Your task to perform on an android device: toggle pop-ups in chrome Image 0: 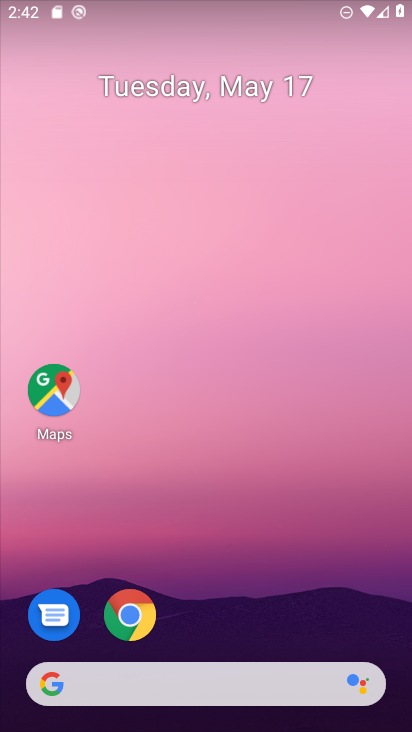
Step 0: click (142, 618)
Your task to perform on an android device: toggle pop-ups in chrome Image 1: 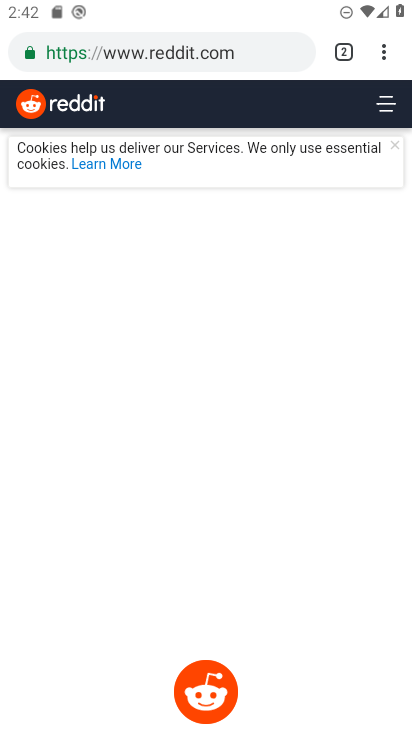
Step 1: click (385, 61)
Your task to perform on an android device: toggle pop-ups in chrome Image 2: 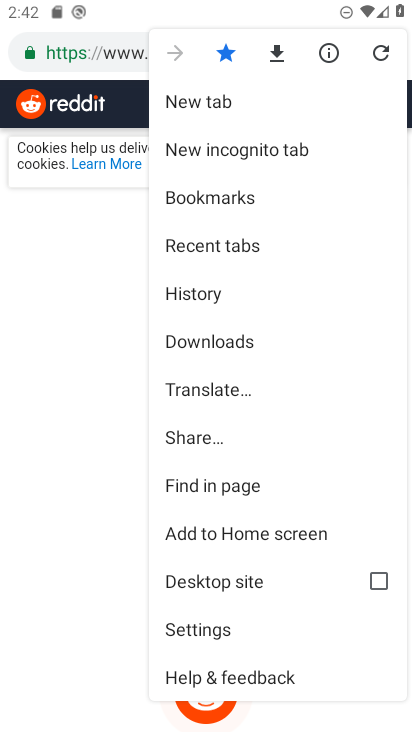
Step 2: click (191, 628)
Your task to perform on an android device: toggle pop-ups in chrome Image 3: 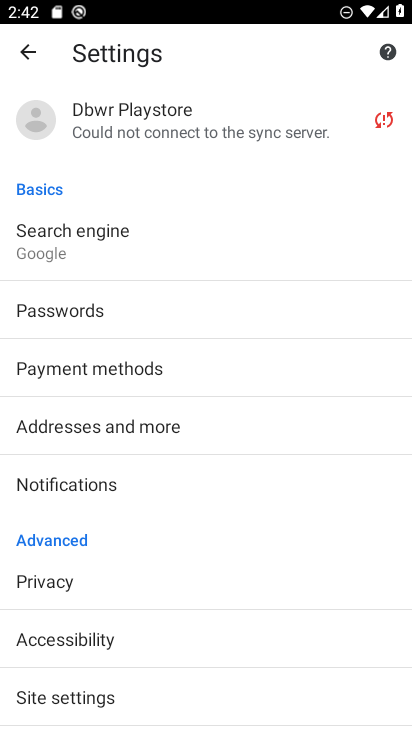
Step 3: click (58, 692)
Your task to perform on an android device: toggle pop-ups in chrome Image 4: 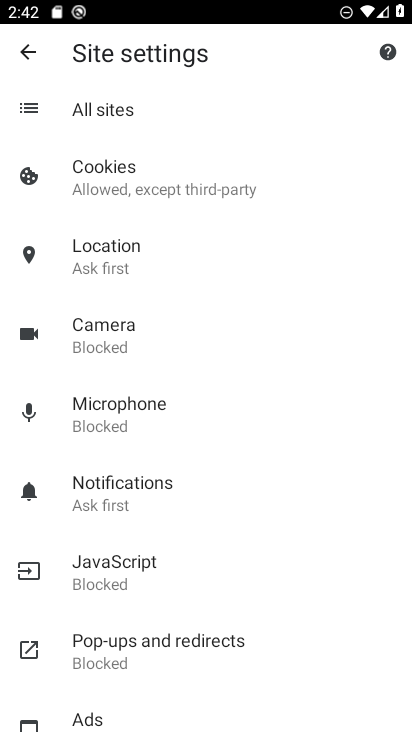
Step 4: drag from (134, 691) to (175, 415)
Your task to perform on an android device: toggle pop-ups in chrome Image 5: 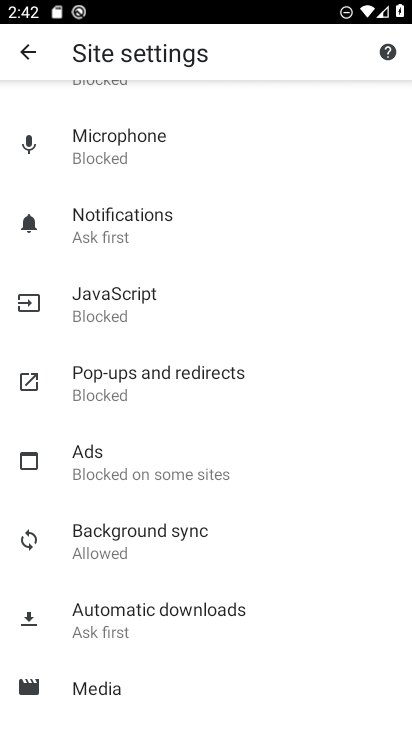
Step 5: click (124, 377)
Your task to perform on an android device: toggle pop-ups in chrome Image 6: 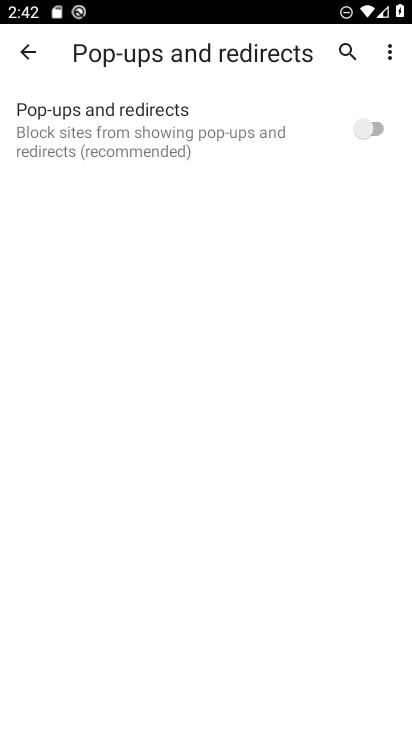
Step 6: click (375, 131)
Your task to perform on an android device: toggle pop-ups in chrome Image 7: 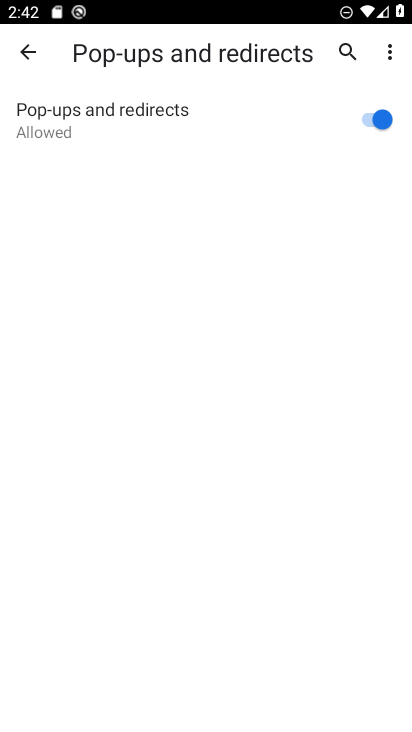
Step 7: task complete